Your task to perform on an android device: set the stopwatch Image 0: 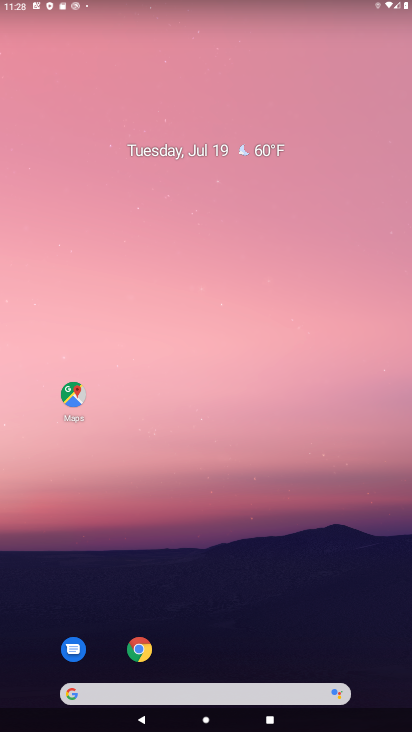
Step 0: drag from (205, 697) to (228, 261)
Your task to perform on an android device: set the stopwatch Image 1: 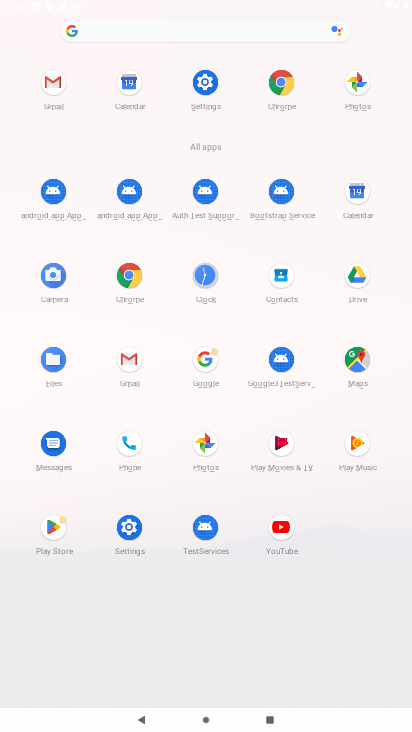
Step 1: click (211, 286)
Your task to perform on an android device: set the stopwatch Image 2: 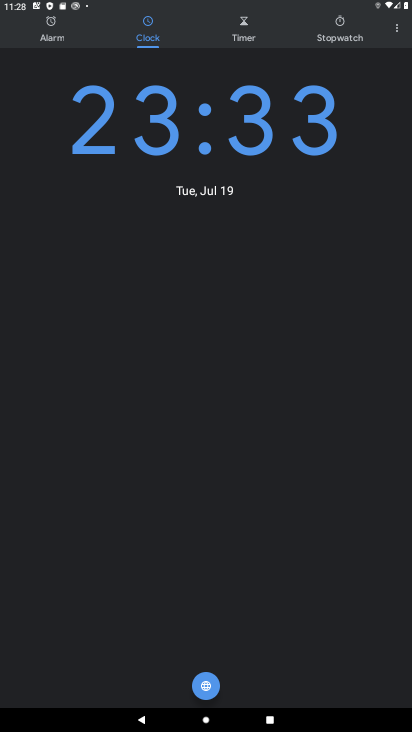
Step 2: click (323, 41)
Your task to perform on an android device: set the stopwatch Image 3: 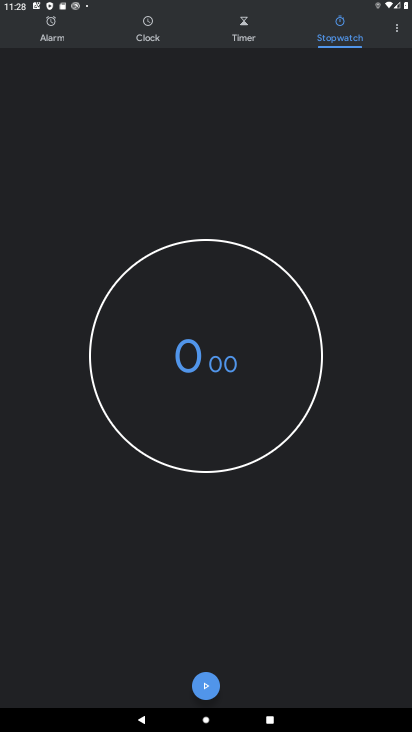
Step 3: click (201, 689)
Your task to perform on an android device: set the stopwatch Image 4: 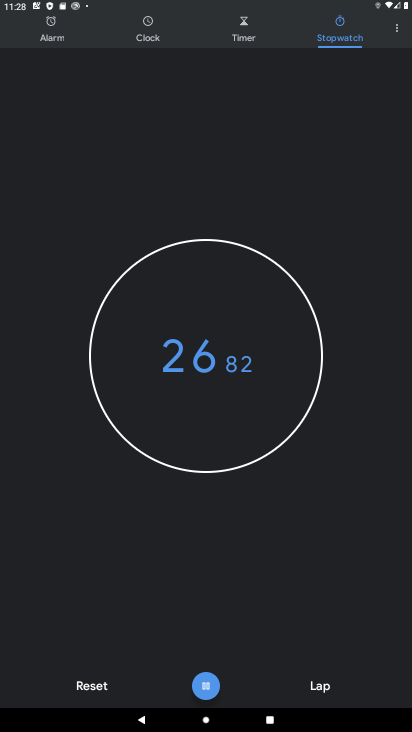
Step 4: task complete